Your task to perform on an android device: turn on wifi Image 0: 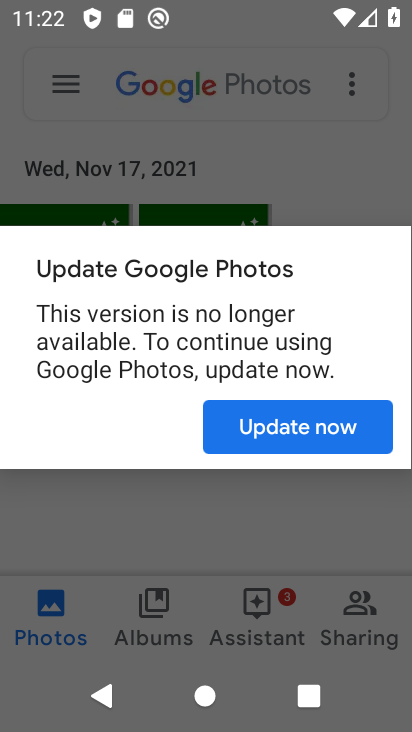
Step 0: press home button
Your task to perform on an android device: turn on wifi Image 1: 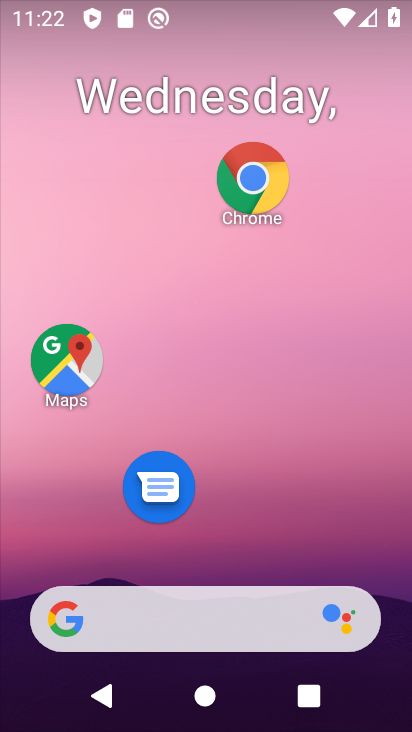
Step 1: drag from (302, 531) to (302, 55)
Your task to perform on an android device: turn on wifi Image 2: 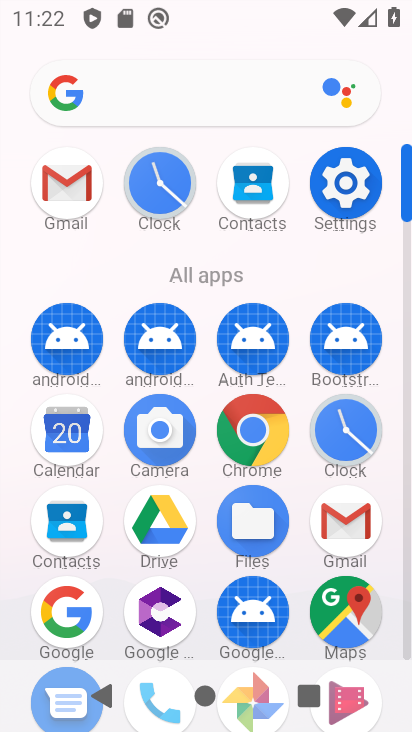
Step 2: click (351, 182)
Your task to perform on an android device: turn on wifi Image 3: 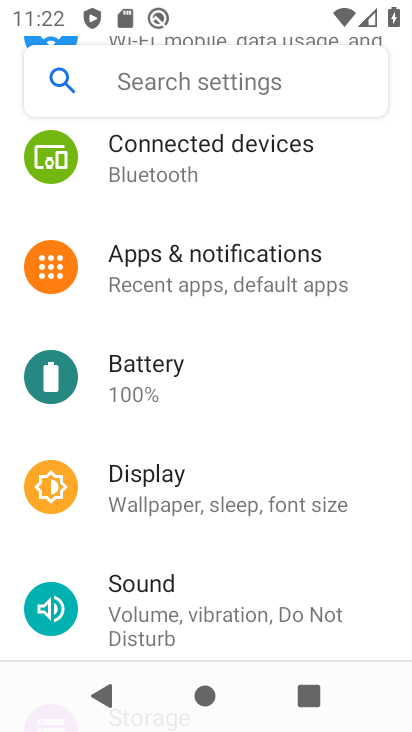
Step 3: drag from (260, 223) to (289, 504)
Your task to perform on an android device: turn on wifi Image 4: 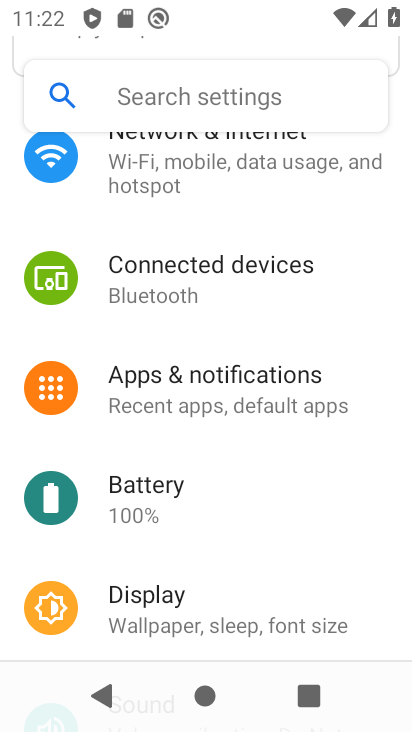
Step 4: click (246, 164)
Your task to perform on an android device: turn on wifi Image 5: 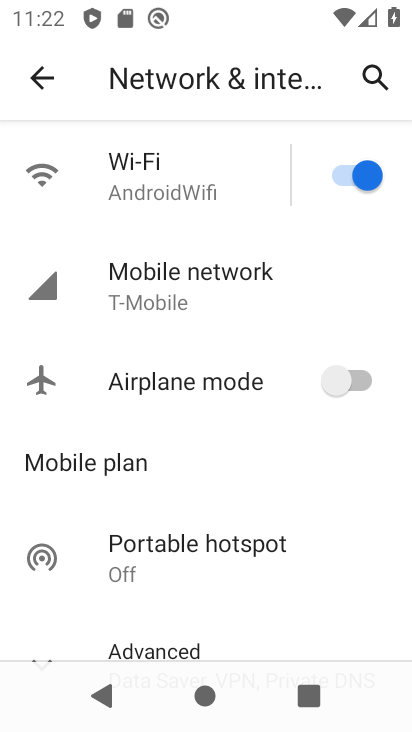
Step 5: task complete